Your task to perform on an android device: delete the emails in spam in the gmail app Image 0: 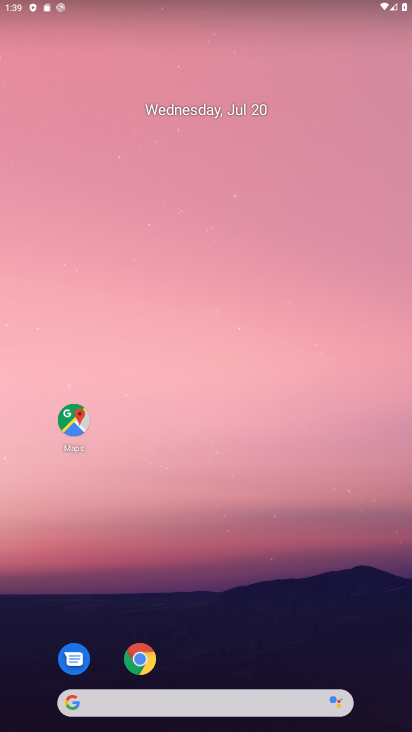
Step 0: drag from (143, 384) to (18, 524)
Your task to perform on an android device: delete the emails in spam in the gmail app Image 1: 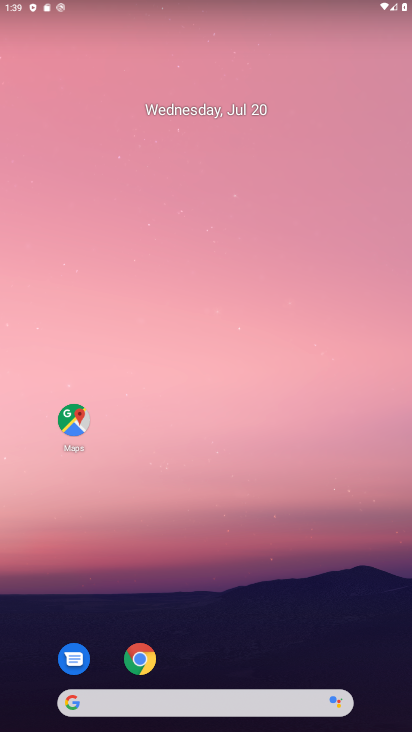
Step 1: drag from (40, 696) to (194, 102)
Your task to perform on an android device: delete the emails in spam in the gmail app Image 2: 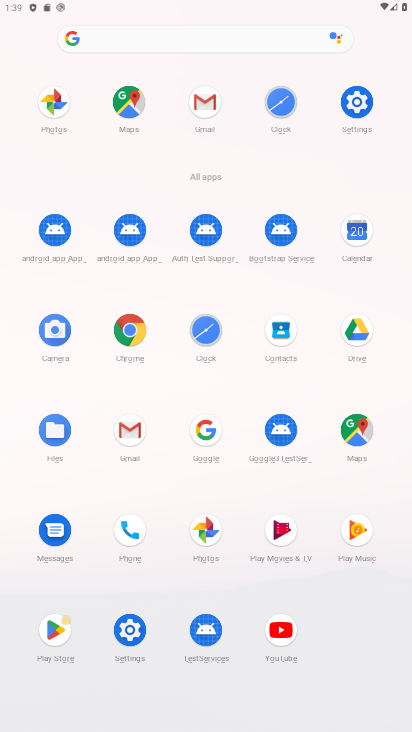
Step 2: click (142, 425)
Your task to perform on an android device: delete the emails in spam in the gmail app Image 3: 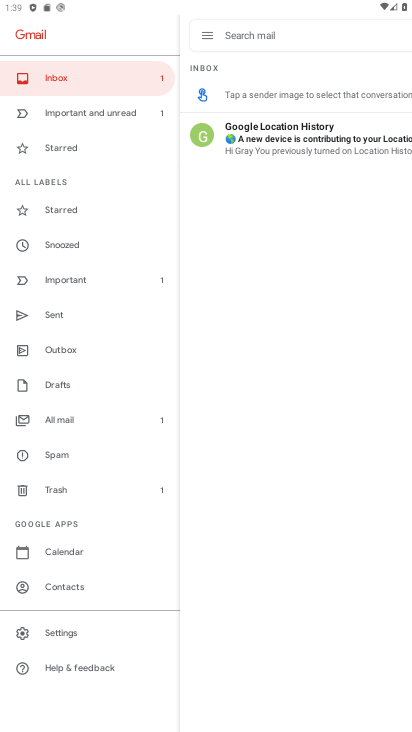
Step 3: click (61, 451)
Your task to perform on an android device: delete the emails in spam in the gmail app Image 4: 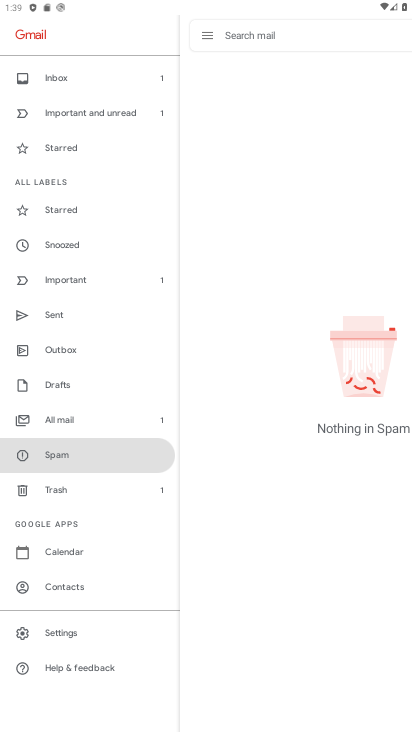
Step 4: task complete